Your task to perform on an android device: turn smart compose on in the gmail app Image 0: 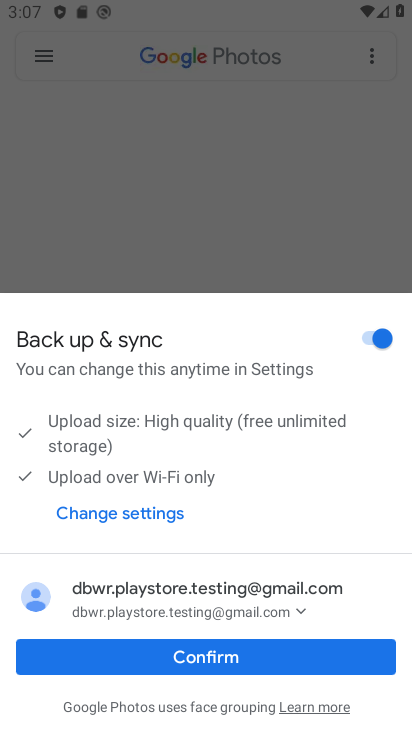
Step 0: click (336, 665)
Your task to perform on an android device: turn smart compose on in the gmail app Image 1: 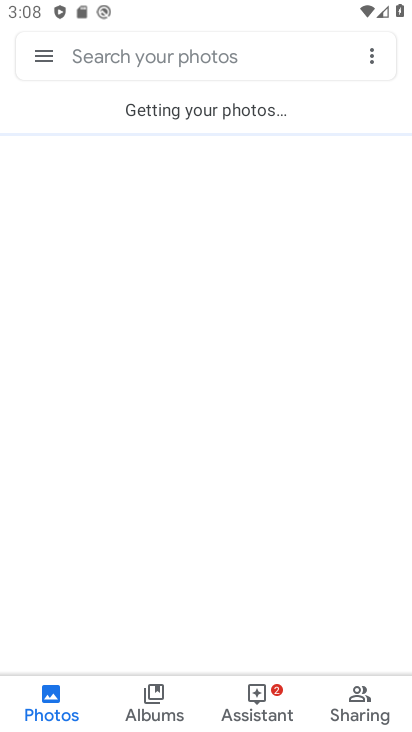
Step 1: press home button
Your task to perform on an android device: turn smart compose on in the gmail app Image 2: 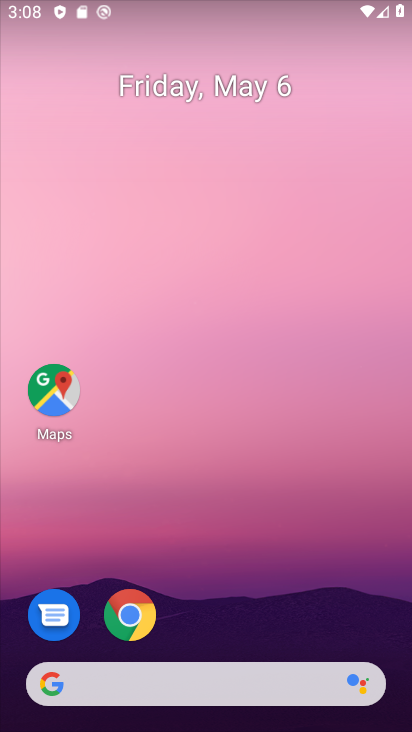
Step 2: drag from (343, 577) to (334, 91)
Your task to perform on an android device: turn smart compose on in the gmail app Image 3: 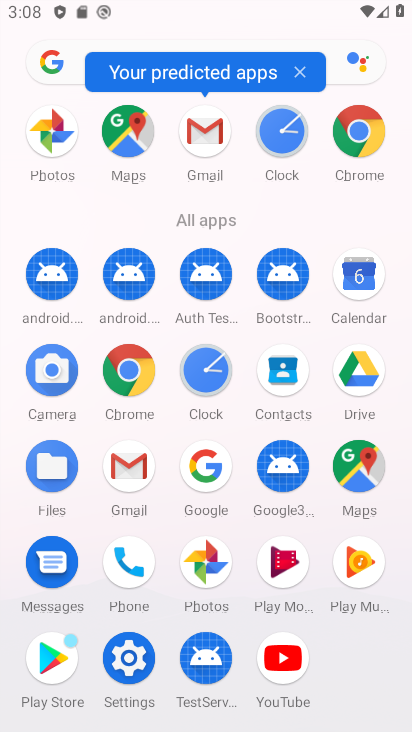
Step 3: click (207, 139)
Your task to perform on an android device: turn smart compose on in the gmail app Image 4: 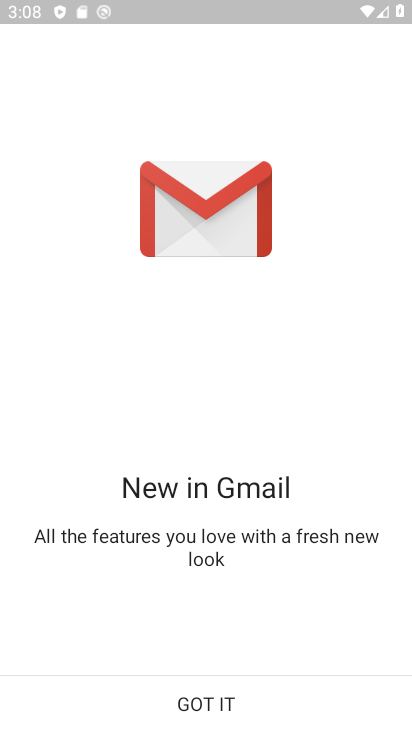
Step 4: click (232, 704)
Your task to perform on an android device: turn smart compose on in the gmail app Image 5: 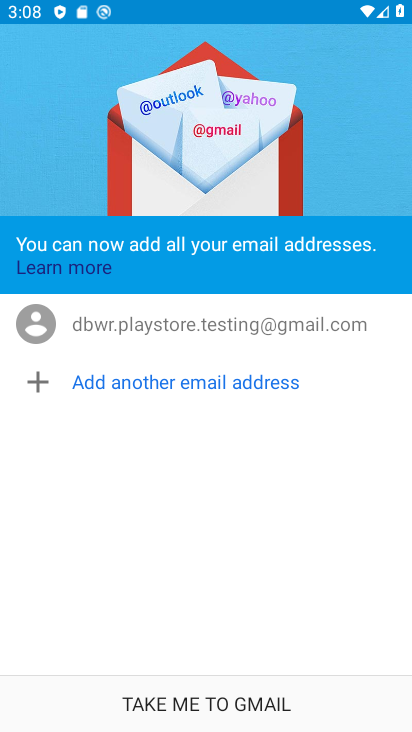
Step 5: click (232, 702)
Your task to perform on an android device: turn smart compose on in the gmail app Image 6: 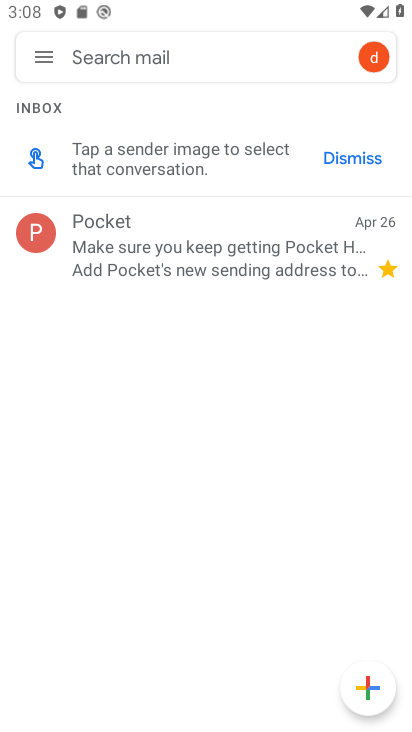
Step 6: click (53, 70)
Your task to perform on an android device: turn smart compose on in the gmail app Image 7: 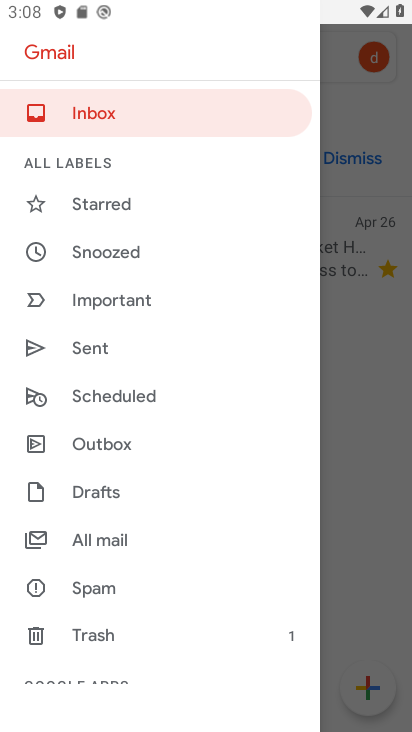
Step 7: drag from (213, 513) to (213, 269)
Your task to perform on an android device: turn smart compose on in the gmail app Image 8: 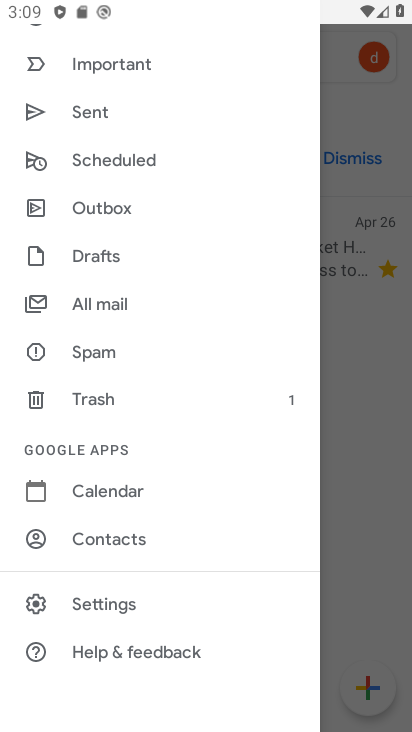
Step 8: click (109, 604)
Your task to perform on an android device: turn smart compose on in the gmail app Image 9: 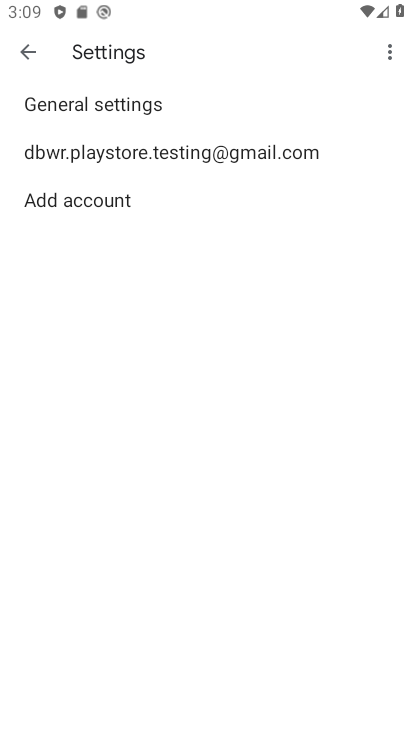
Step 9: click (212, 154)
Your task to perform on an android device: turn smart compose on in the gmail app Image 10: 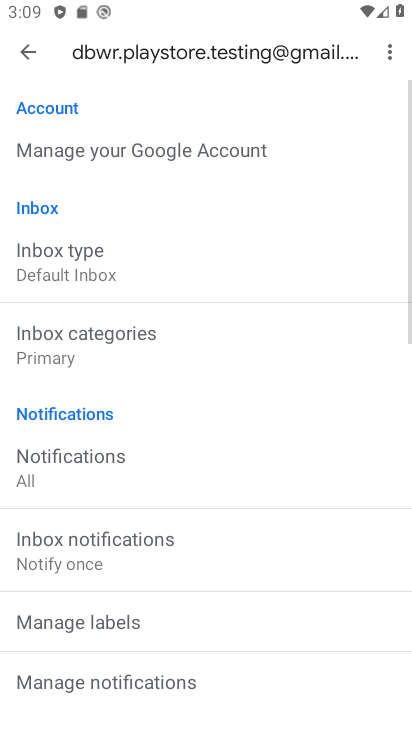
Step 10: task complete